Your task to perform on an android device: Open calendar and show me the second week of next month Image 0: 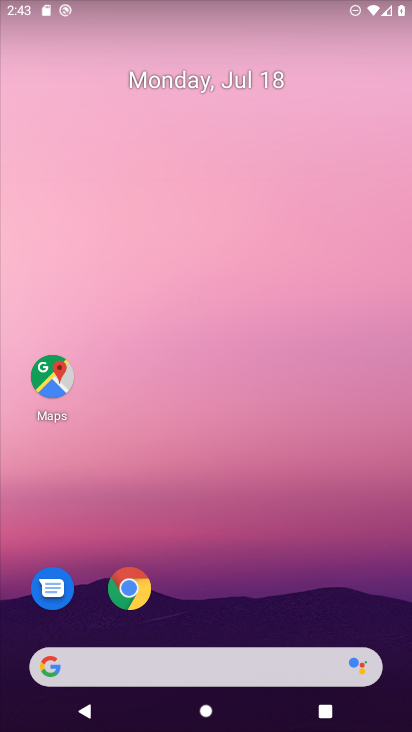
Step 0: drag from (162, 72) to (388, 564)
Your task to perform on an android device: Open calendar and show me the second week of next month Image 1: 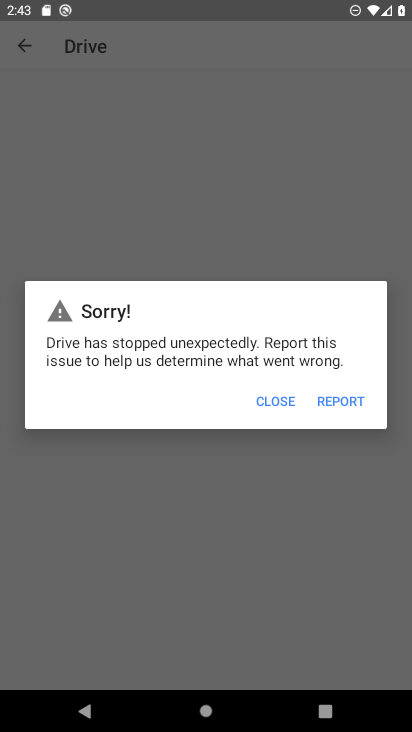
Step 1: press home button
Your task to perform on an android device: Open calendar and show me the second week of next month Image 2: 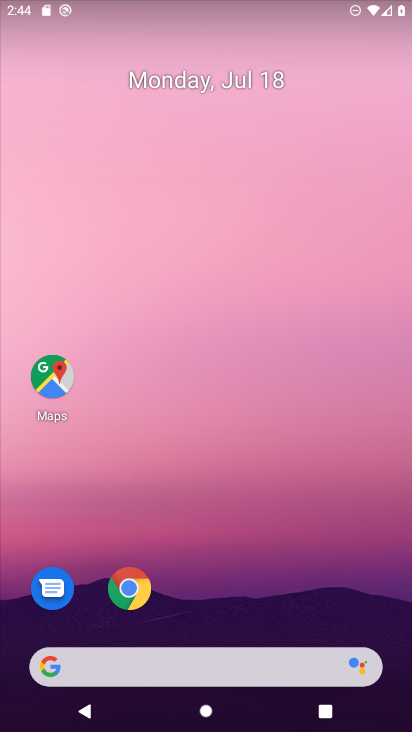
Step 2: drag from (390, 633) to (253, 76)
Your task to perform on an android device: Open calendar and show me the second week of next month Image 3: 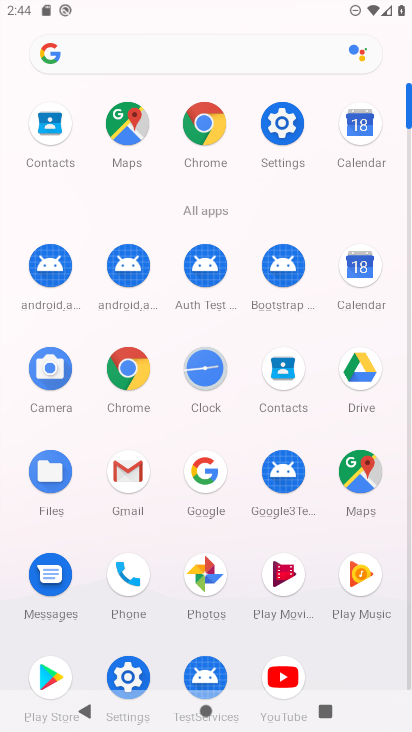
Step 3: click (364, 273)
Your task to perform on an android device: Open calendar and show me the second week of next month Image 4: 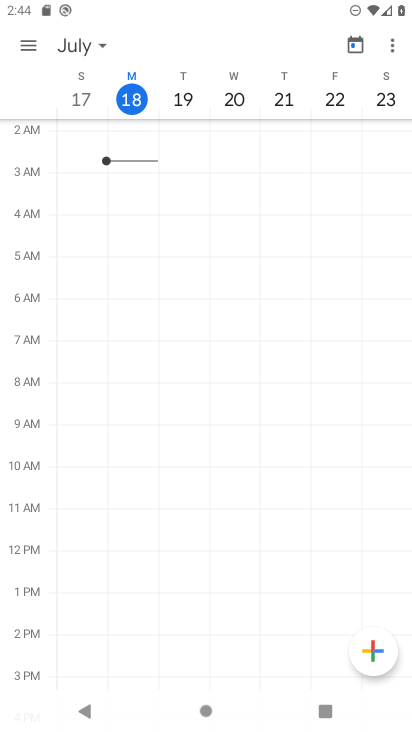
Step 4: click (32, 49)
Your task to perform on an android device: Open calendar and show me the second week of next month Image 5: 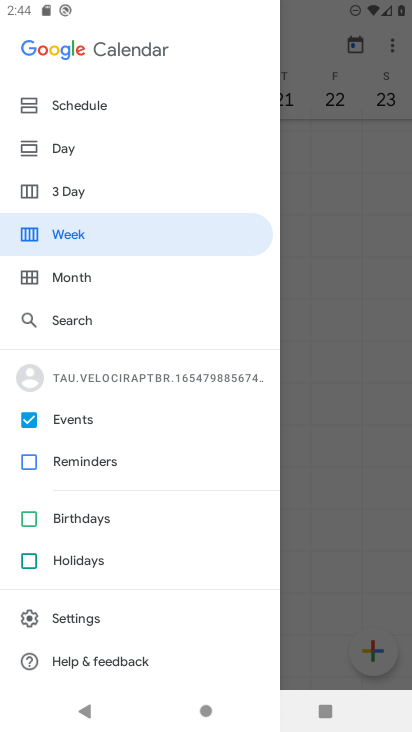
Step 5: click (102, 233)
Your task to perform on an android device: Open calendar and show me the second week of next month Image 6: 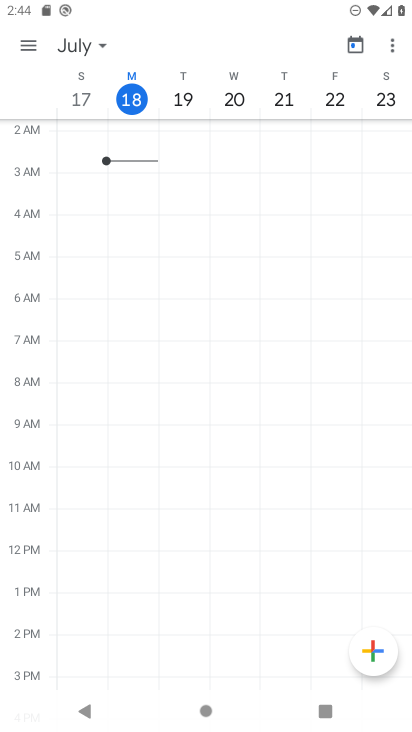
Step 6: click (101, 50)
Your task to perform on an android device: Open calendar and show me the second week of next month Image 7: 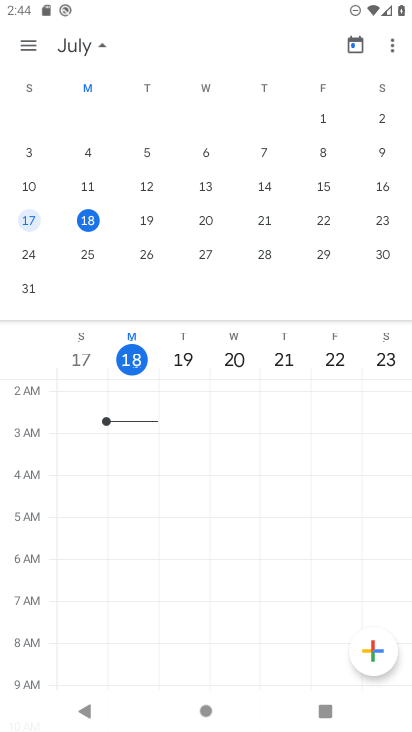
Step 7: drag from (391, 196) to (40, 224)
Your task to perform on an android device: Open calendar and show me the second week of next month Image 8: 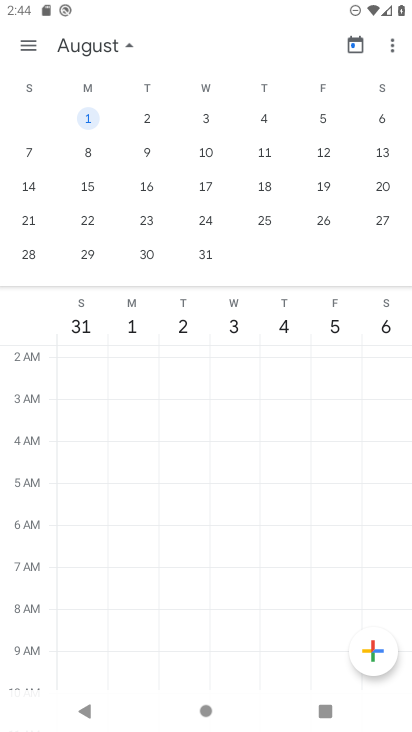
Step 8: click (202, 148)
Your task to perform on an android device: Open calendar and show me the second week of next month Image 9: 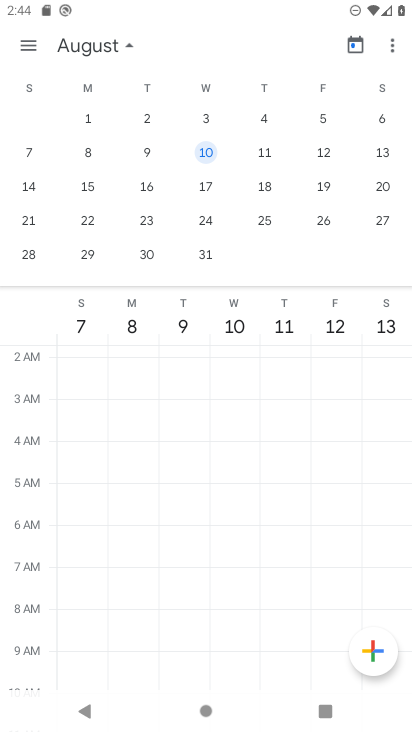
Step 9: task complete